Your task to perform on an android device: find photos in the google photos app Image 0: 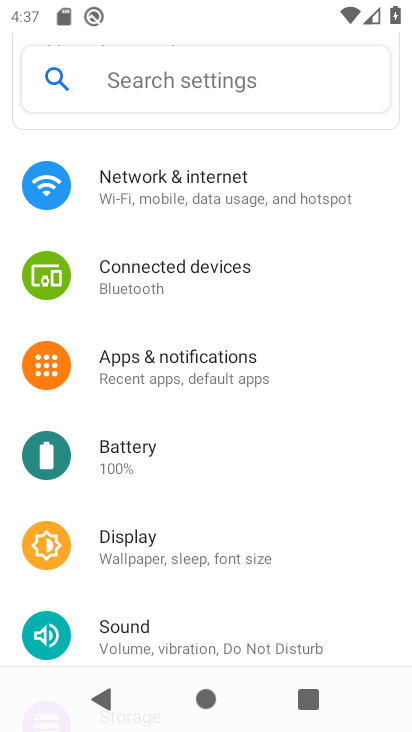
Step 0: press home button
Your task to perform on an android device: find photos in the google photos app Image 1: 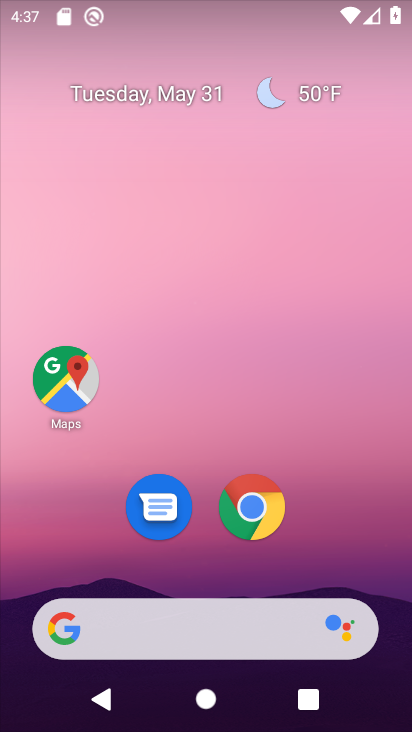
Step 1: drag from (304, 549) to (308, 73)
Your task to perform on an android device: find photos in the google photos app Image 2: 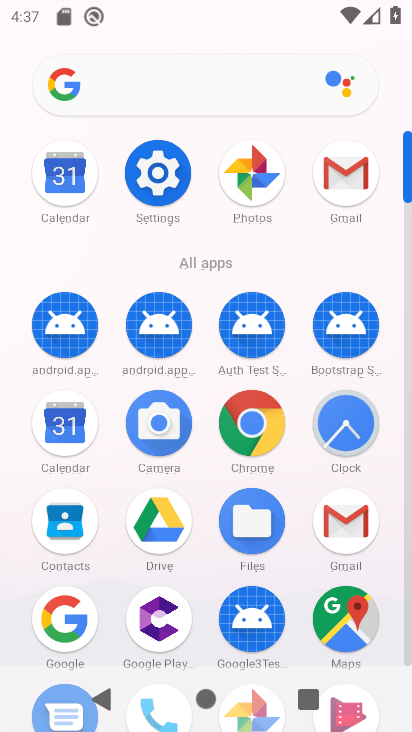
Step 2: click (261, 173)
Your task to perform on an android device: find photos in the google photos app Image 3: 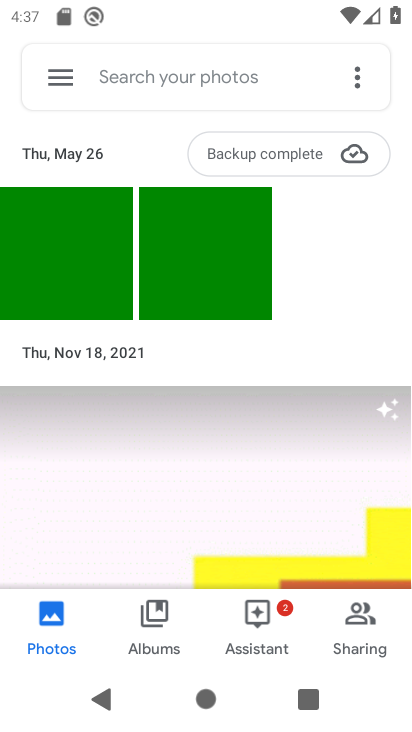
Step 3: click (55, 634)
Your task to perform on an android device: find photos in the google photos app Image 4: 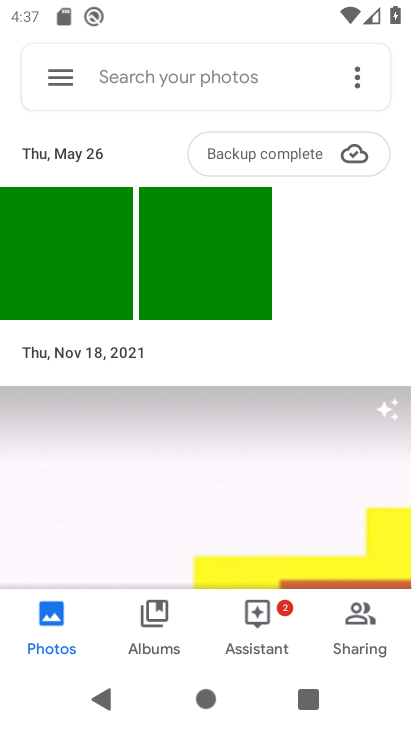
Step 4: task complete